Your task to perform on an android device: choose inbox layout in the gmail app Image 0: 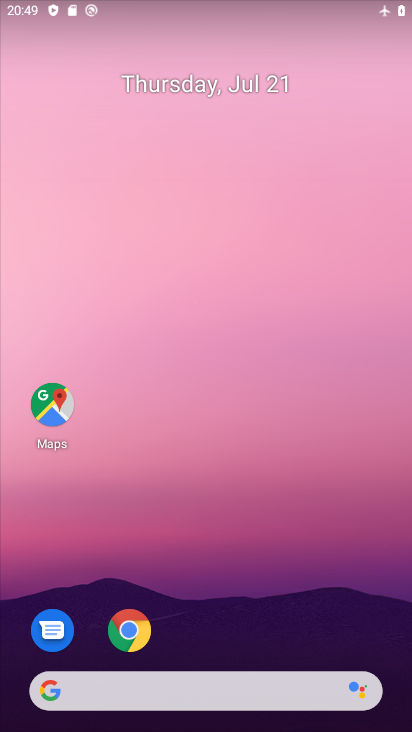
Step 0: drag from (287, 652) to (240, 100)
Your task to perform on an android device: choose inbox layout in the gmail app Image 1: 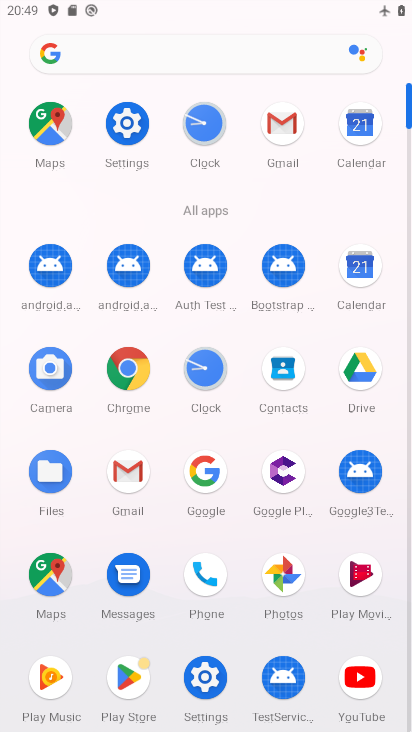
Step 1: click (284, 123)
Your task to perform on an android device: choose inbox layout in the gmail app Image 2: 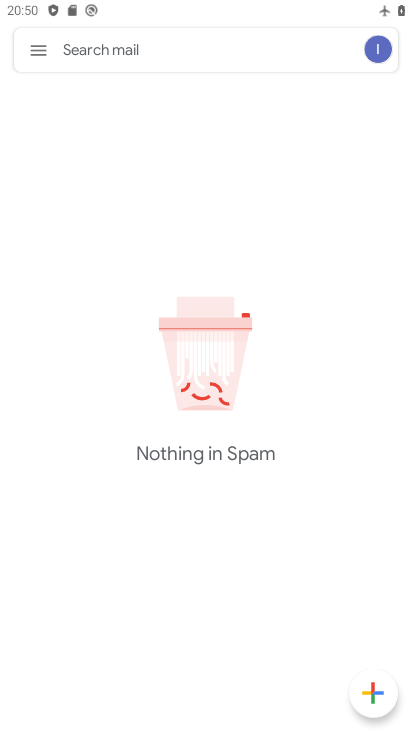
Step 2: click (34, 47)
Your task to perform on an android device: choose inbox layout in the gmail app Image 3: 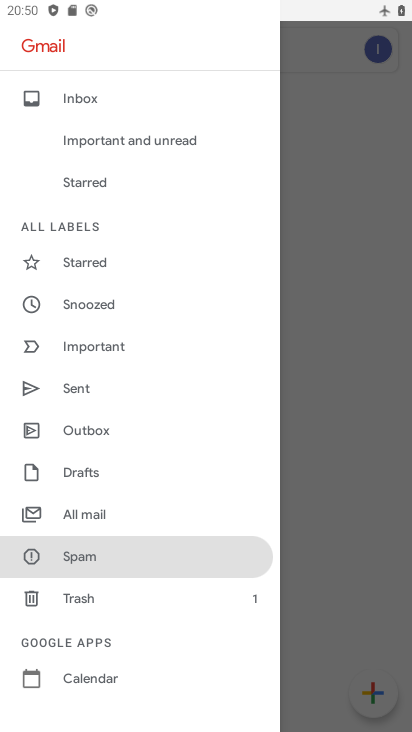
Step 3: drag from (72, 683) to (77, 377)
Your task to perform on an android device: choose inbox layout in the gmail app Image 4: 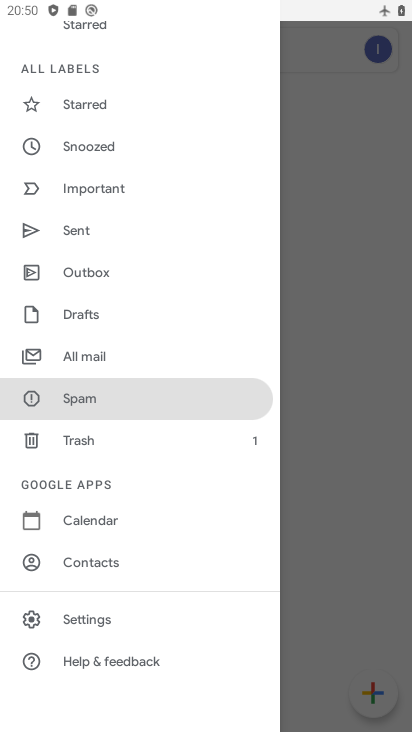
Step 4: click (91, 618)
Your task to perform on an android device: choose inbox layout in the gmail app Image 5: 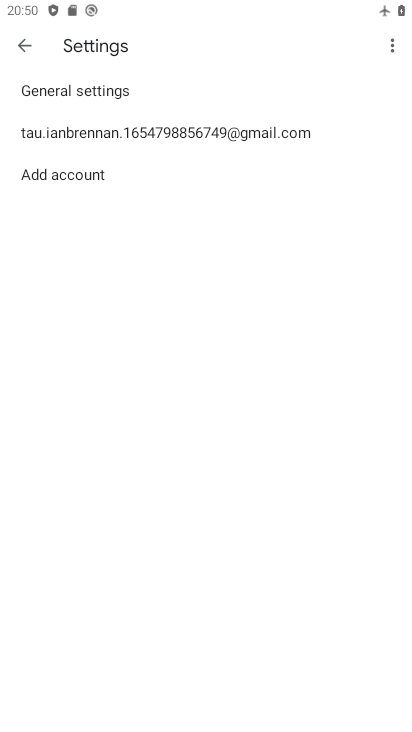
Step 5: click (80, 136)
Your task to perform on an android device: choose inbox layout in the gmail app Image 6: 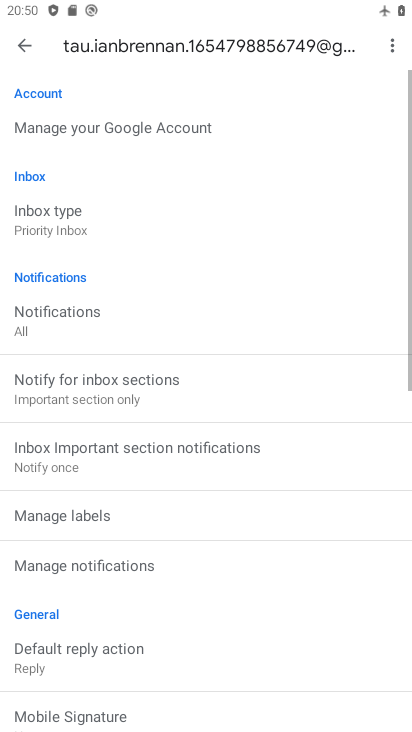
Step 6: click (49, 223)
Your task to perform on an android device: choose inbox layout in the gmail app Image 7: 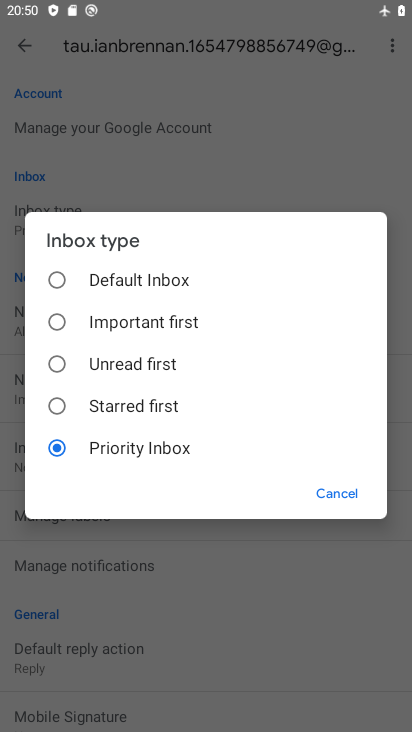
Step 7: click (91, 325)
Your task to perform on an android device: choose inbox layout in the gmail app Image 8: 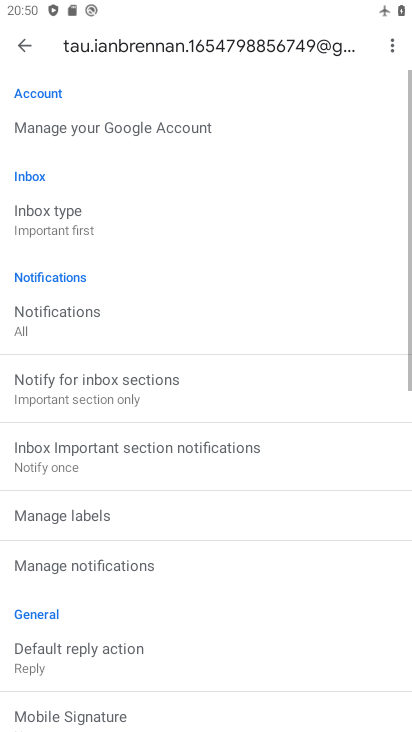
Step 8: task complete